Your task to perform on an android device: turn off location history Image 0: 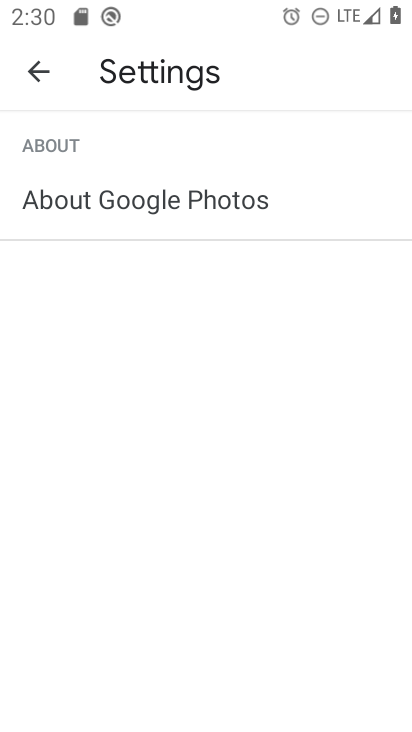
Step 0: press home button
Your task to perform on an android device: turn off location history Image 1: 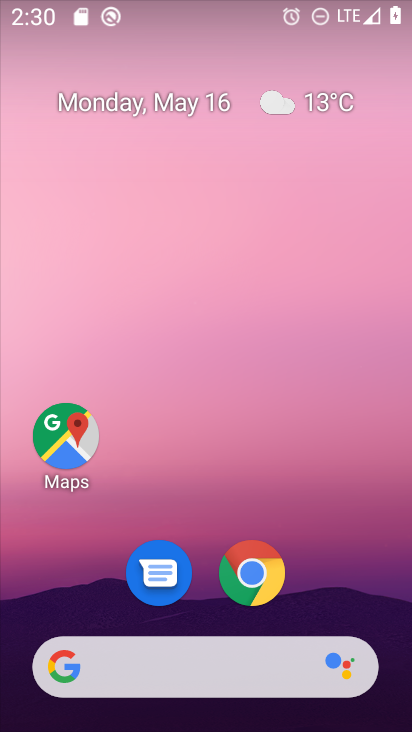
Step 1: drag from (164, 639) to (106, 4)
Your task to perform on an android device: turn off location history Image 2: 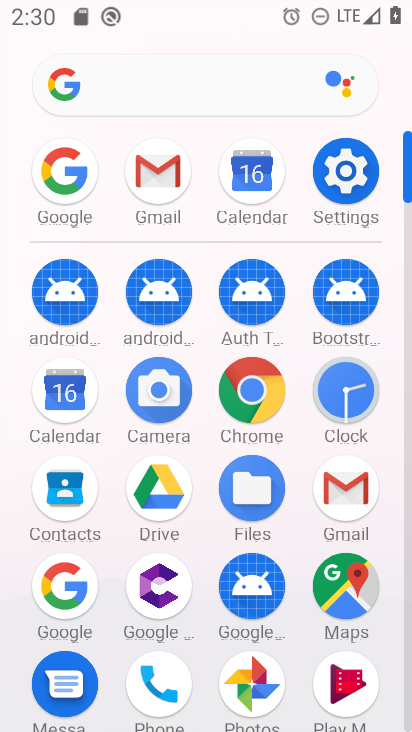
Step 2: click (341, 161)
Your task to perform on an android device: turn off location history Image 3: 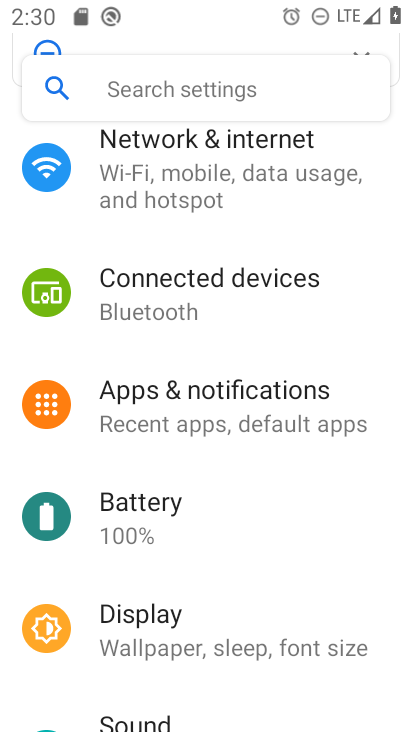
Step 3: drag from (197, 524) to (194, 73)
Your task to perform on an android device: turn off location history Image 4: 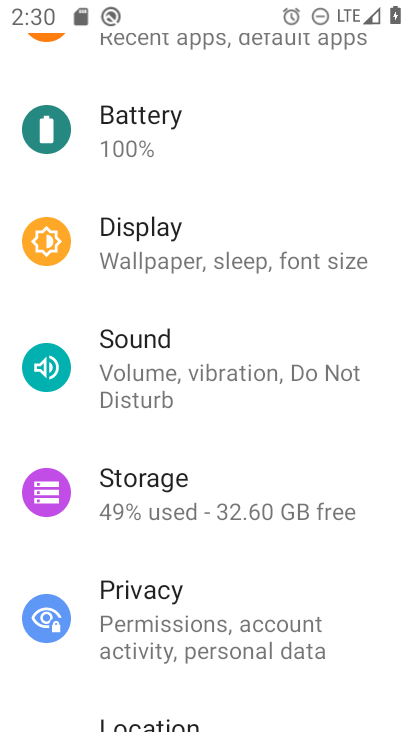
Step 4: drag from (113, 626) to (180, 19)
Your task to perform on an android device: turn off location history Image 5: 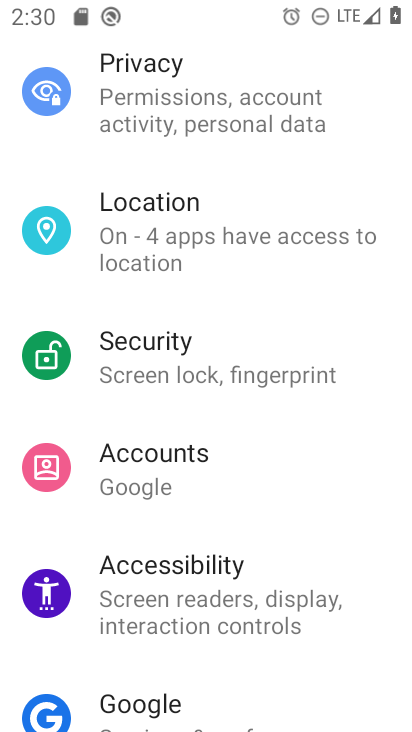
Step 5: click (168, 220)
Your task to perform on an android device: turn off location history Image 6: 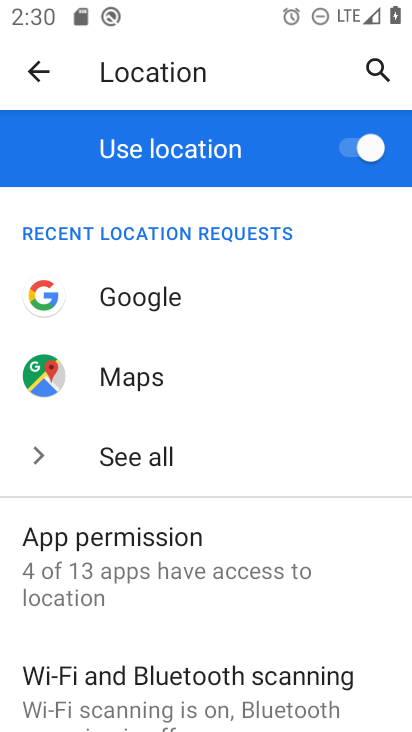
Step 6: drag from (131, 640) to (123, 167)
Your task to perform on an android device: turn off location history Image 7: 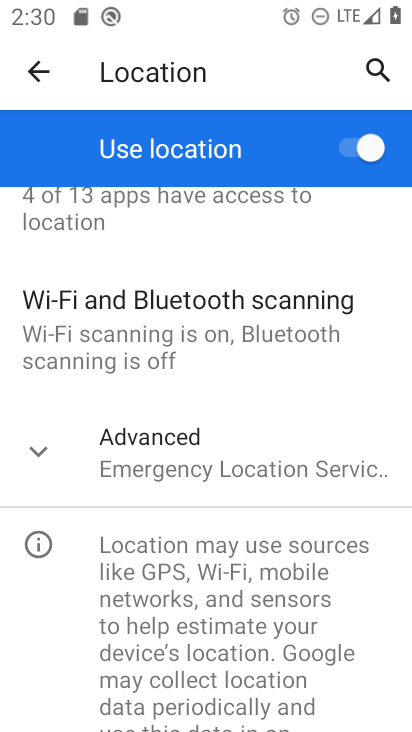
Step 7: click (138, 468)
Your task to perform on an android device: turn off location history Image 8: 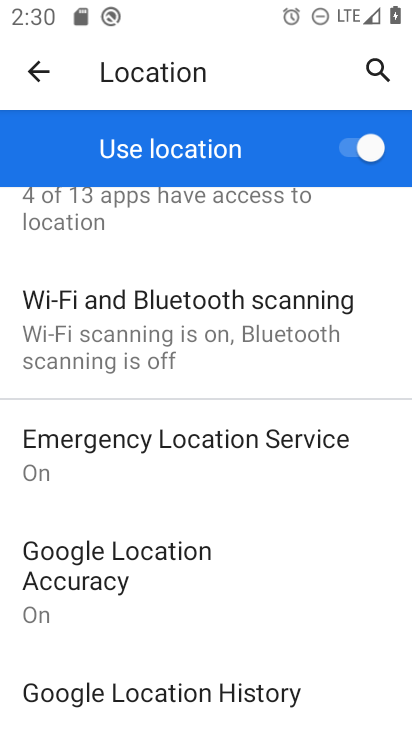
Step 8: click (163, 676)
Your task to perform on an android device: turn off location history Image 9: 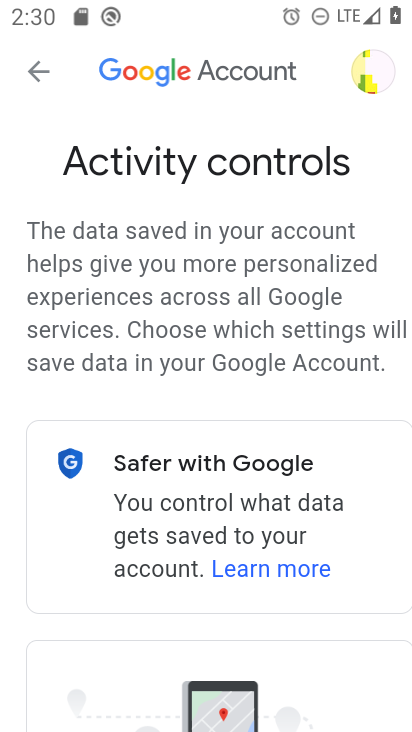
Step 9: drag from (188, 613) to (4, 349)
Your task to perform on an android device: turn off location history Image 10: 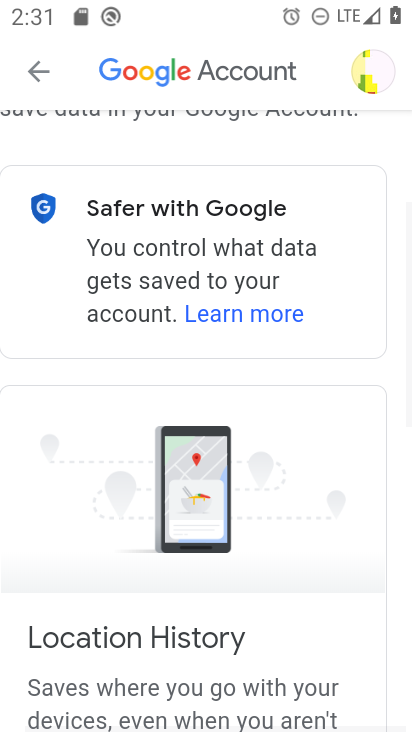
Step 10: drag from (258, 699) to (44, 421)
Your task to perform on an android device: turn off location history Image 11: 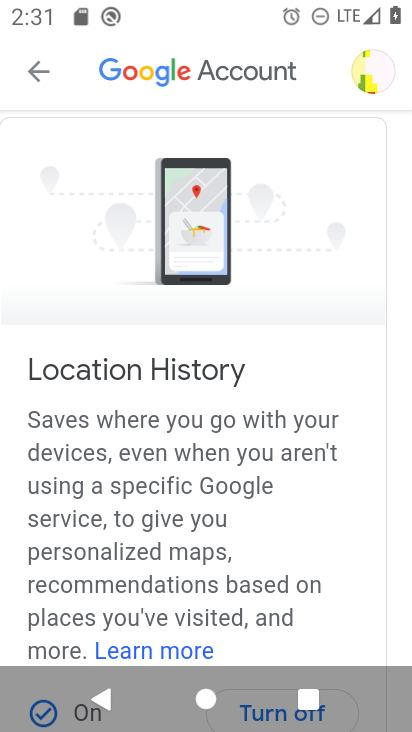
Step 11: drag from (231, 634) to (34, 437)
Your task to perform on an android device: turn off location history Image 12: 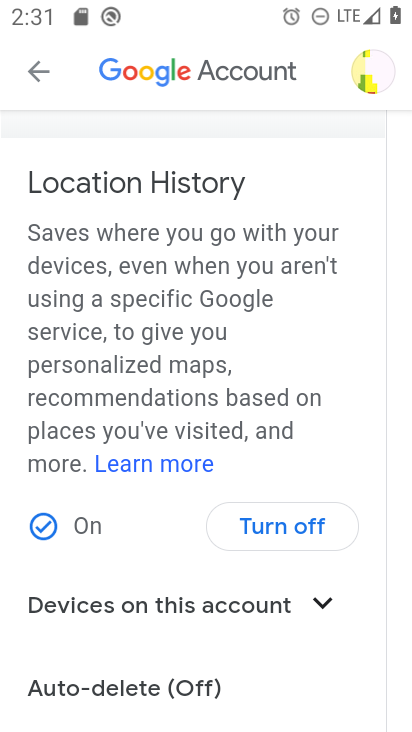
Step 12: click (263, 541)
Your task to perform on an android device: turn off location history Image 13: 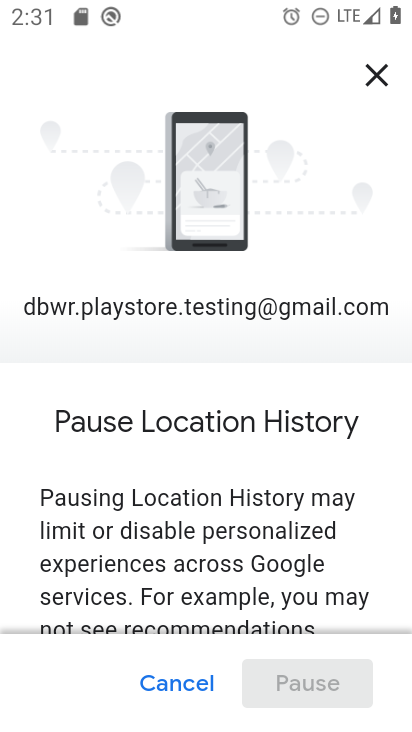
Step 13: drag from (266, 622) to (219, 232)
Your task to perform on an android device: turn off location history Image 14: 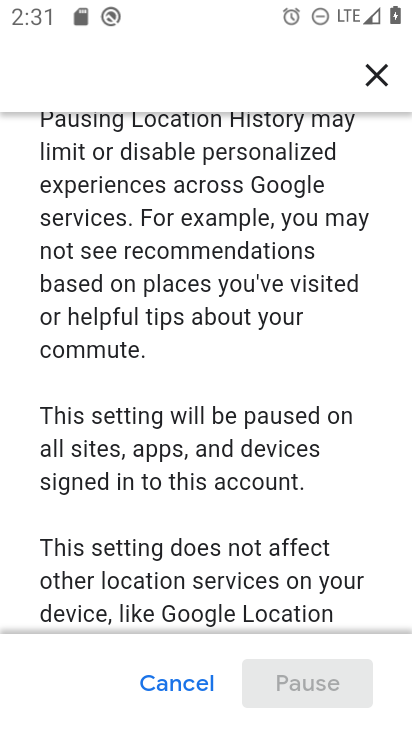
Step 14: click (280, 672)
Your task to perform on an android device: turn off location history Image 15: 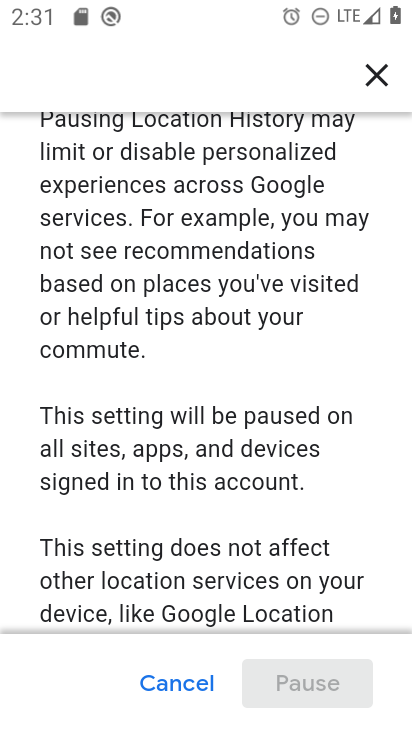
Step 15: drag from (244, 575) to (217, 201)
Your task to perform on an android device: turn off location history Image 16: 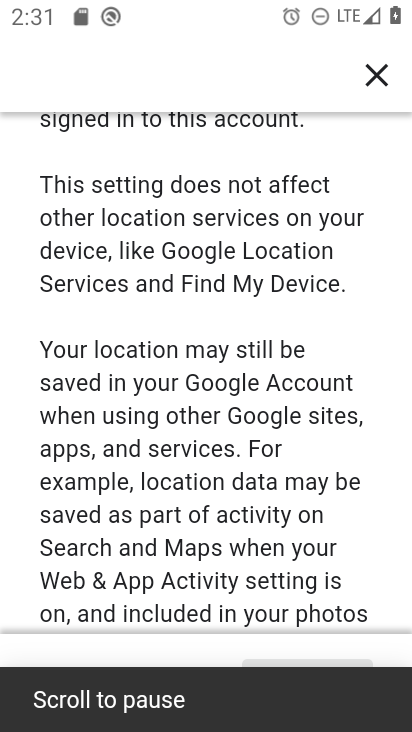
Step 16: drag from (261, 582) to (242, 224)
Your task to perform on an android device: turn off location history Image 17: 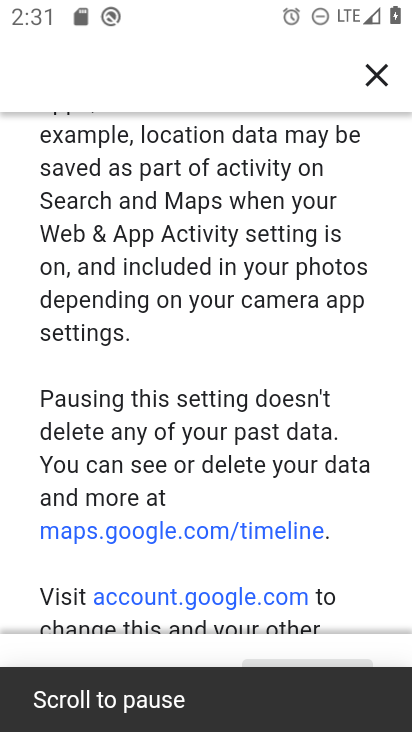
Step 17: drag from (210, 515) to (206, 89)
Your task to perform on an android device: turn off location history Image 18: 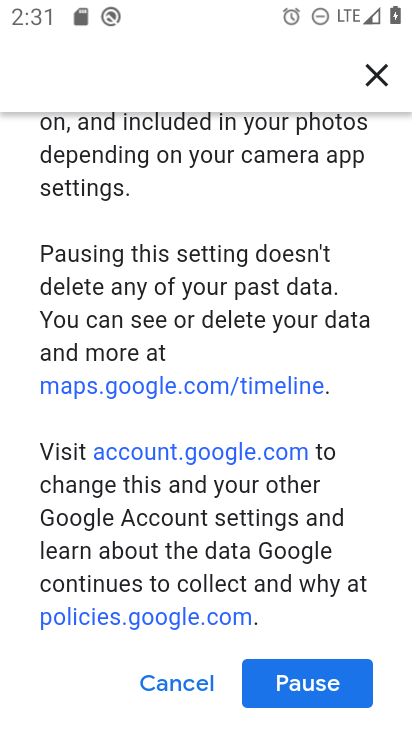
Step 18: click (287, 690)
Your task to perform on an android device: turn off location history Image 19: 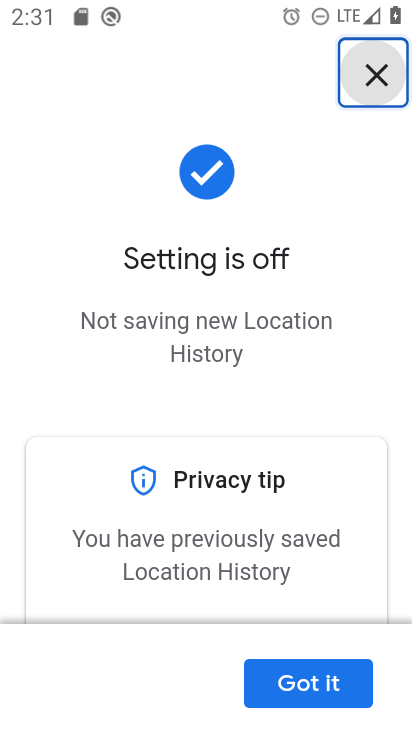
Step 19: click (287, 689)
Your task to perform on an android device: turn off location history Image 20: 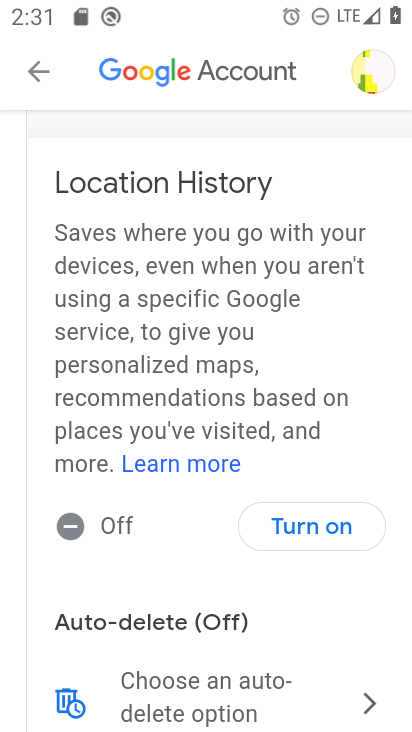
Step 20: task complete